Your task to perform on an android device: manage bookmarks in the chrome app Image 0: 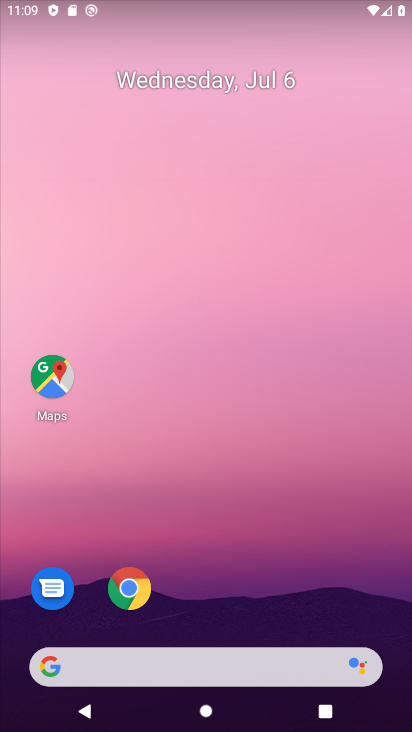
Step 0: click (110, 584)
Your task to perform on an android device: manage bookmarks in the chrome app Image 1: 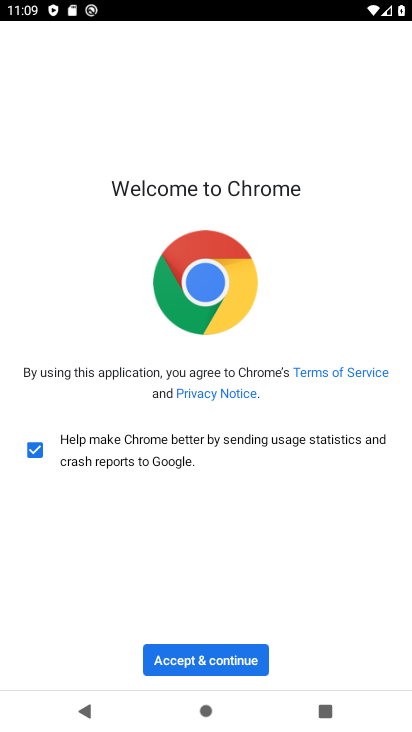
Step 1: click (229, 655)
Your task to perform on an android device: manage bookmarks in the chrome app Image 2: 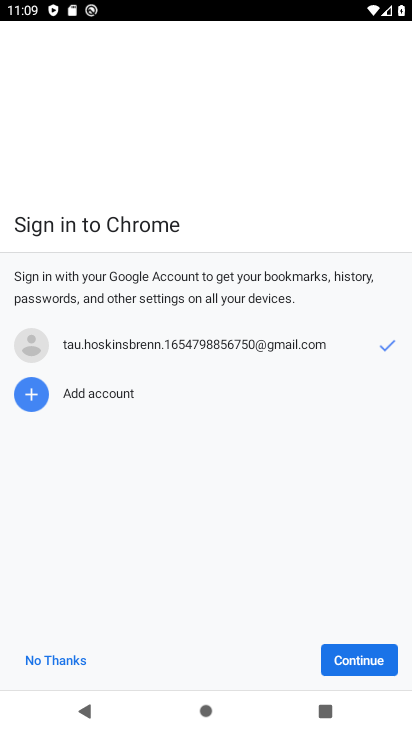
Step 2: click (383, 660)
Your task to perform on an android device: manage bookmarks in the chrome app Image 3: 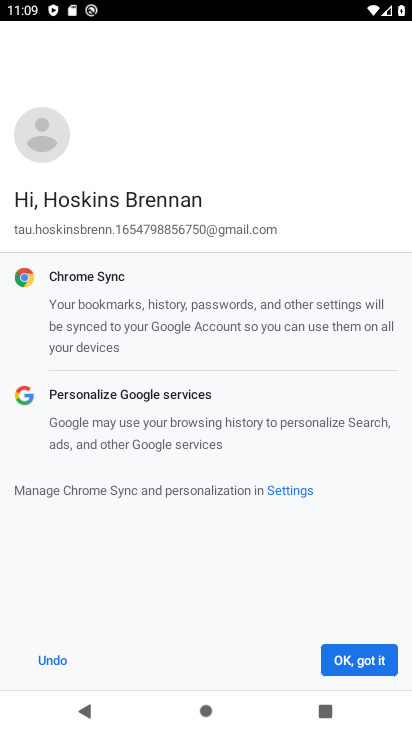
Step 3: click (383, 660)
Your task to perform on an android device: manage bookmarks in the chrome app Image 4: 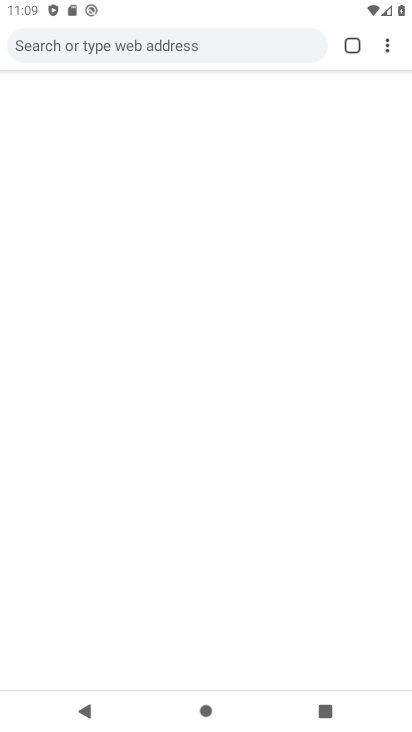
Step 4: click (381, 42)
Your task to perform on an android device: manage bookmarks in the chrome app Image 5: 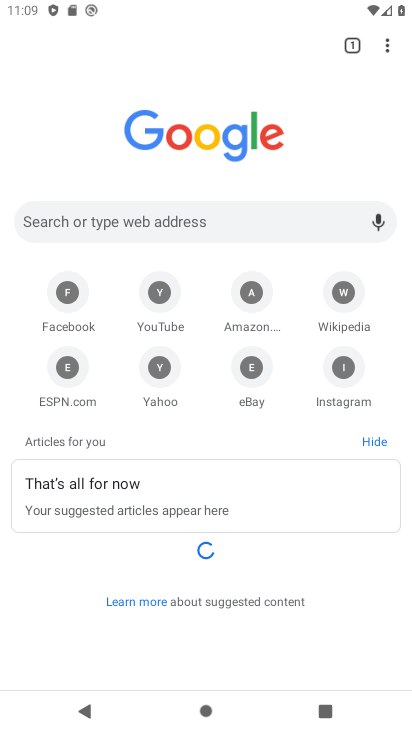
Step 5: click (387, 42)
Your task to perform on an android device: manage bookmarks in the chrome app Image 6: 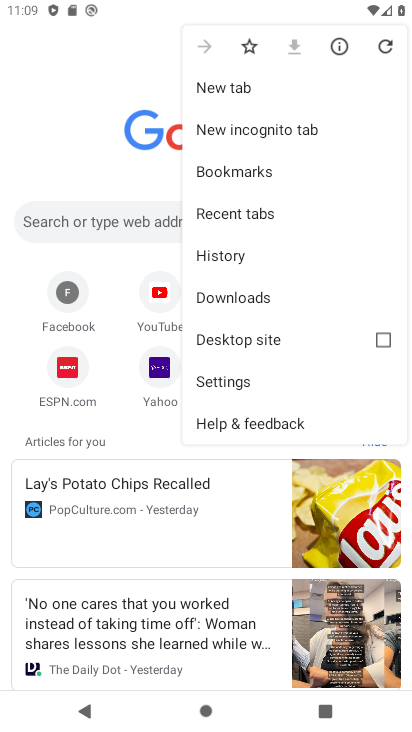
Step 6: click (263, 168)
Your task to perform on an android device: manage bookmarks in the chrome app Image 7: 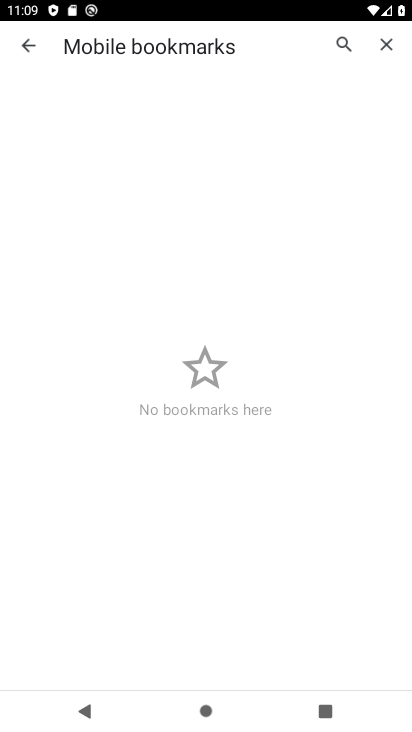
Step 7: task complete